Your task to perform on an android device: turn on the 12-hour format for clock Image 0: 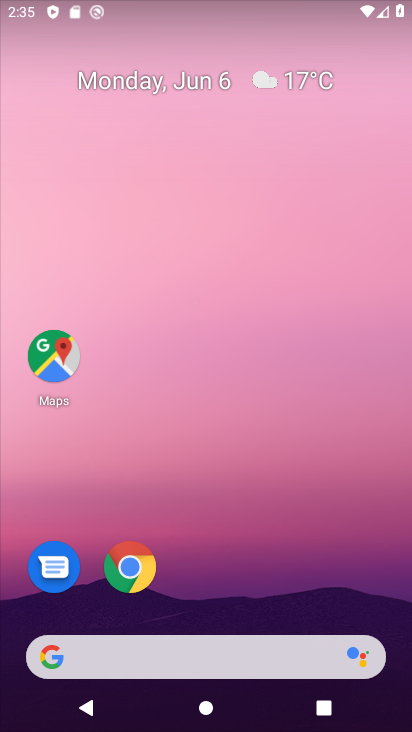
Step 0: drag from (200, 621) to (186, 57)
Your task to perform on an android device: turn on the 12-hour format for clock Image 1: 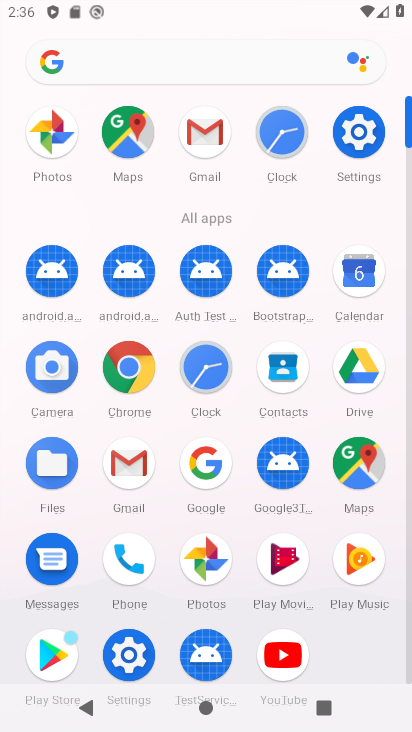
Step 1: click (208, 362)
Your task to perform on an android device: turn on the 12-hour format for clock Image 2: 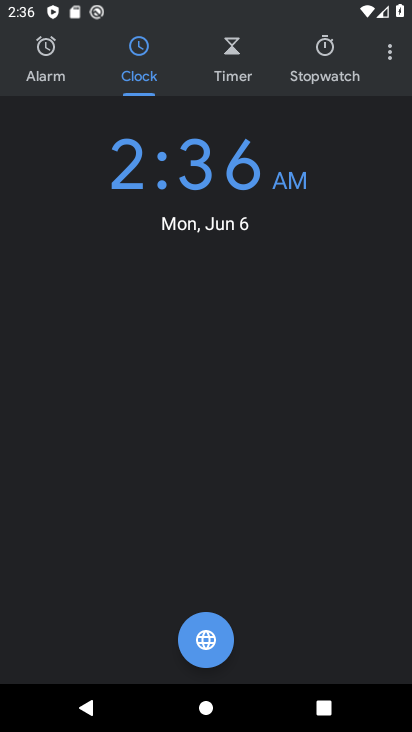
Step 2: click (380, 59)
Your task to perform on an android device: turn on the 12-hour format for clock Image 3: 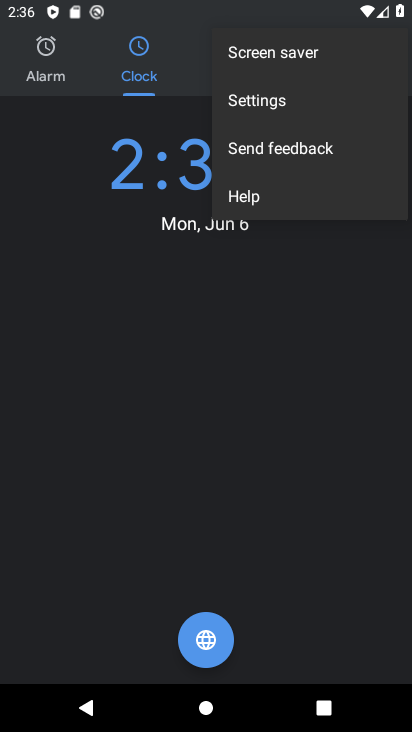
Step 3: click (280, 93)
Your task to perform on an android device: turn on the 12-hour format for clock Image 4: 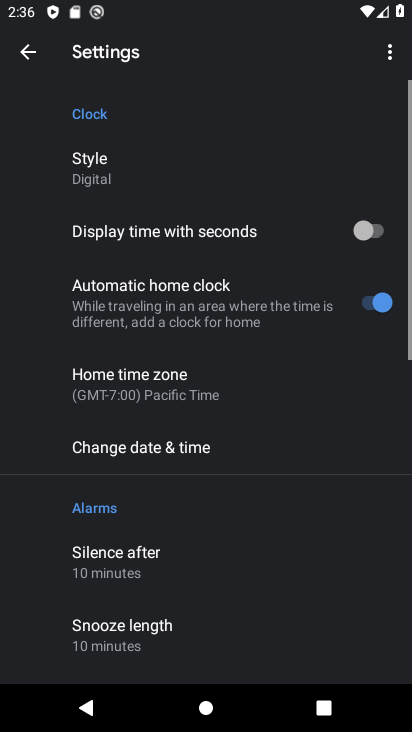
Step 4: drag from (212, 594) to (154, 196)
Your task to perform on an android device: turn on the 12-hour format for clock Image 5: 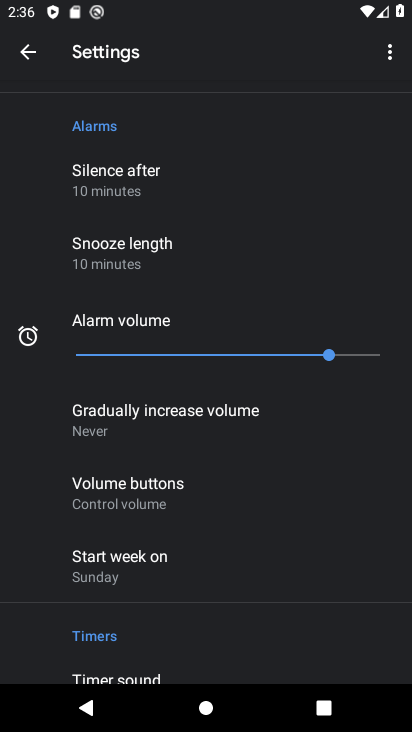
Step 5: click (138, 95)
Your task to perform on an android device: turn on the 12-hour format for clock Image 6: 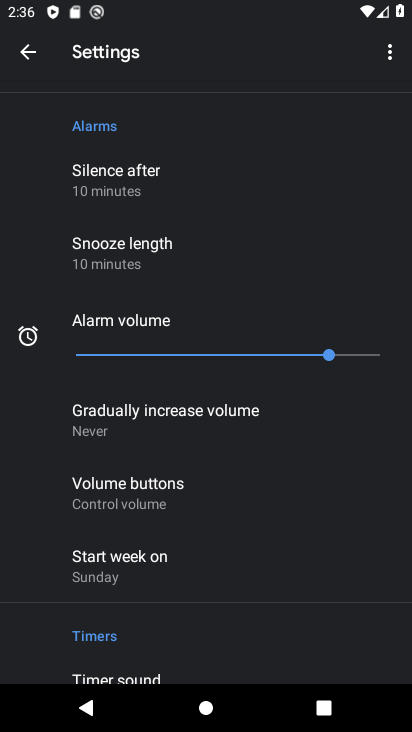
Step 6: drag from (139, 100) to (156, 250)
Your task to perform on an android device: turn on the 12-hour format for clock Image 7: 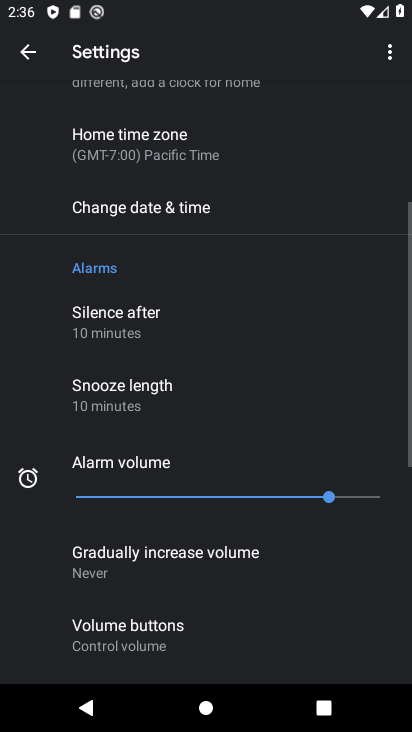
Step 7: click (149, 190)
Your task to perform on an android device: turn on the 12-hour format for clock Image 8: 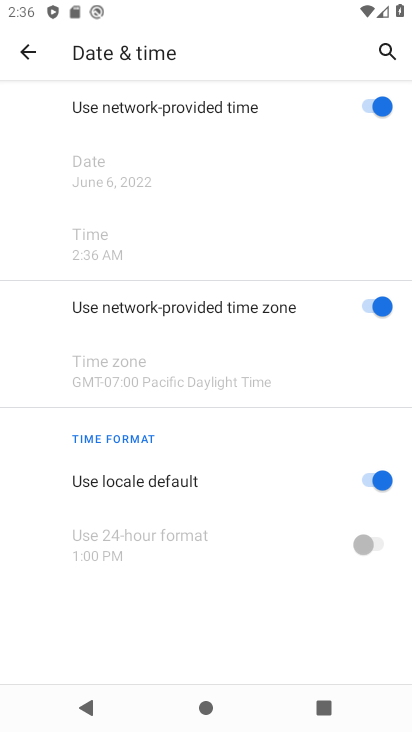
Step 8: task complete